Your task to perform on an android device: Open the calendar app, open the side menu, and click the "Day" option Image 0: 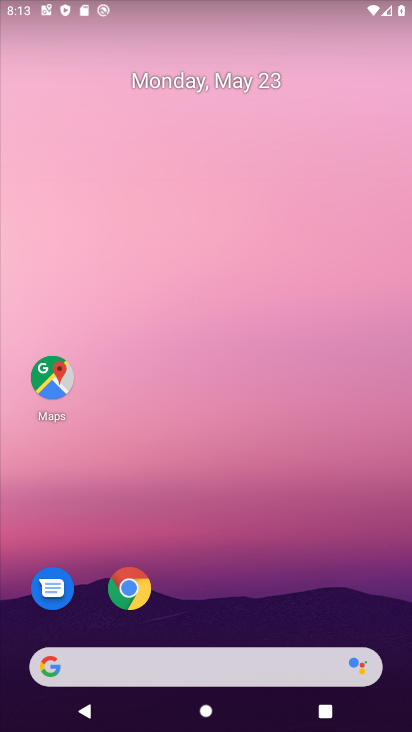
Step 0: drag from (389, 647) to (356, 284)
Your task to perform on an android device: Open the calendar app, open the side menu, and click the "Day" option Image 1: 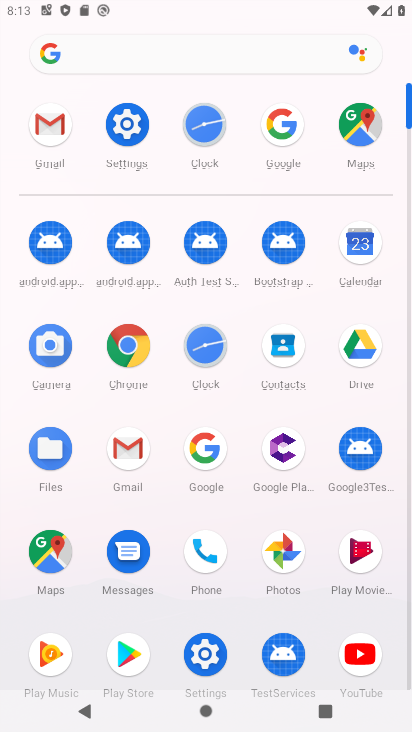
Step 1: click (356, 243)
Your task to perform on an android device: Open the calendar app, open the side menu, and click the "Day" option Image 2: 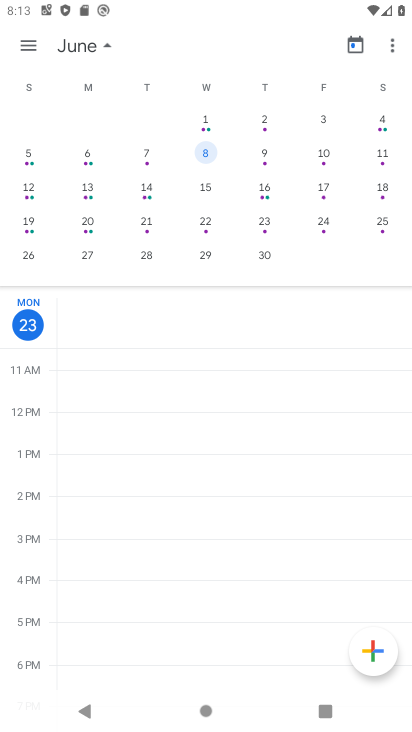
Step 2: click (102, 44)
Your task to perform on an android device: Open the calendar app, open the side menu, and click the "Day" option Image 3: 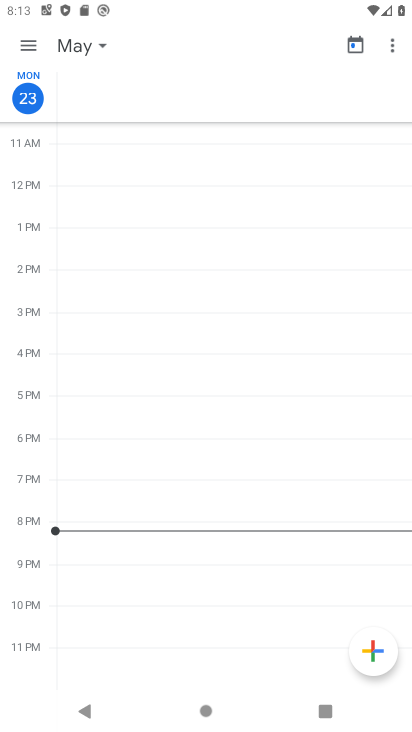
Step 3: click (102, 44)
Your task to perform on an android device: Open the calendar app, open the side menu, and click the "Day" option Image 4: 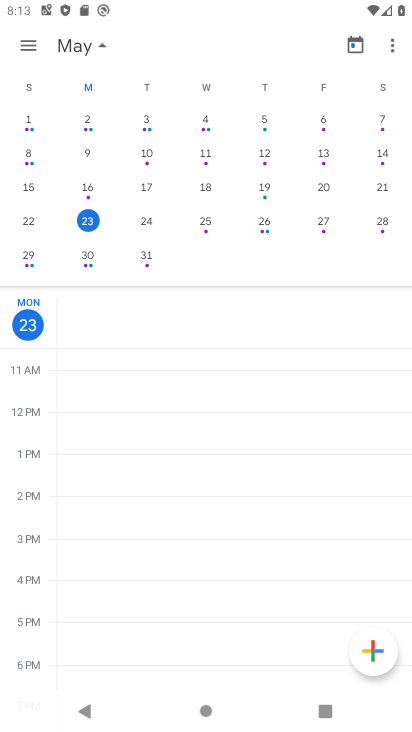
Step 4: click (22, 37)
Your task to perform on an android device: Open the calendar app, open the side menu, and click the "Day" option Image 5: 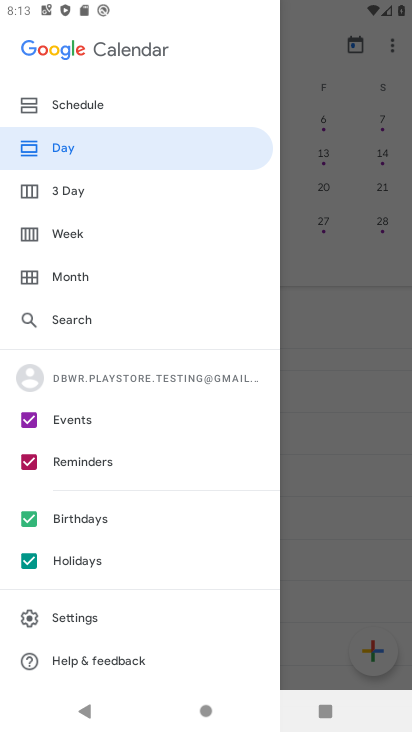
Step 5: click (47, 143)
Your task to perform on an android device: Open the calendar app, open the side menu, and click the "Day" option Image 6: 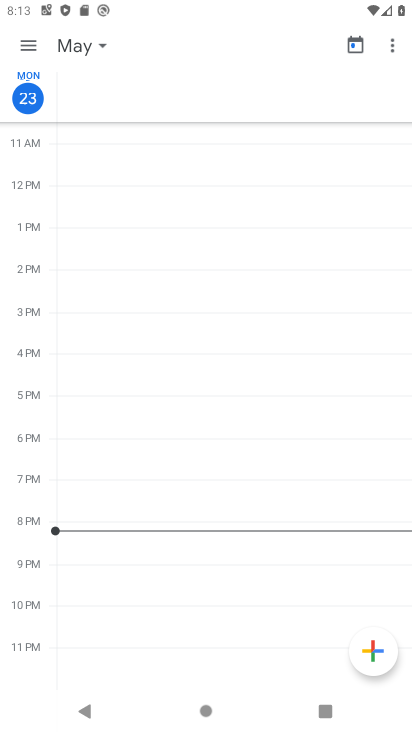
Step 6: task complete